Your task to perform on an android device: Open Google Chrome and open the bookmarks view Image 0: 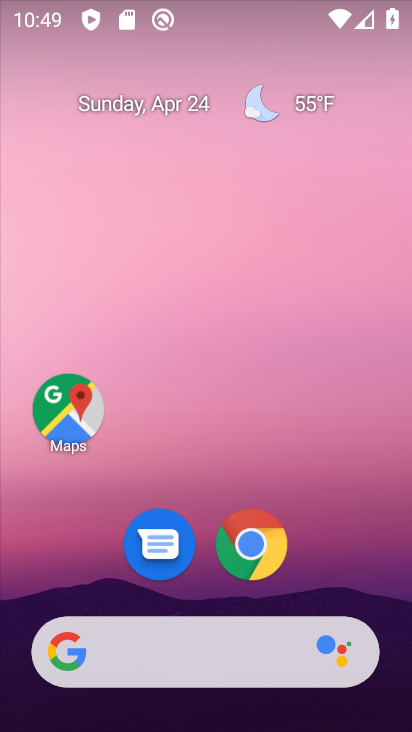
Step 0: click (265, 545)
Your task to perform on an android device: Open Google Chrome and open the bookmarks view Image 1: 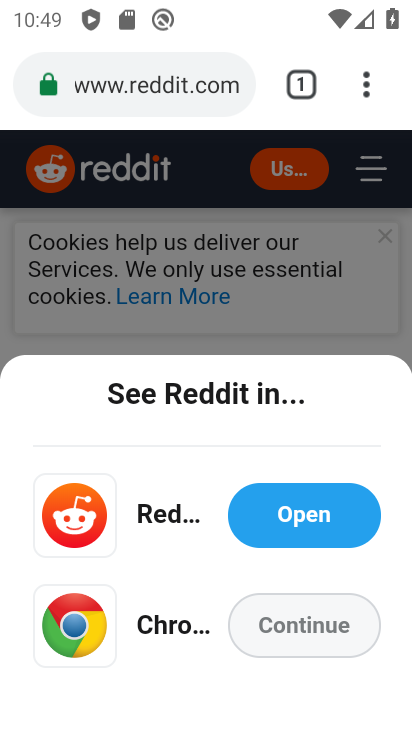
Step 1: task complete